Your task to perform on an android device: Go to Yahoo.com Image 0: 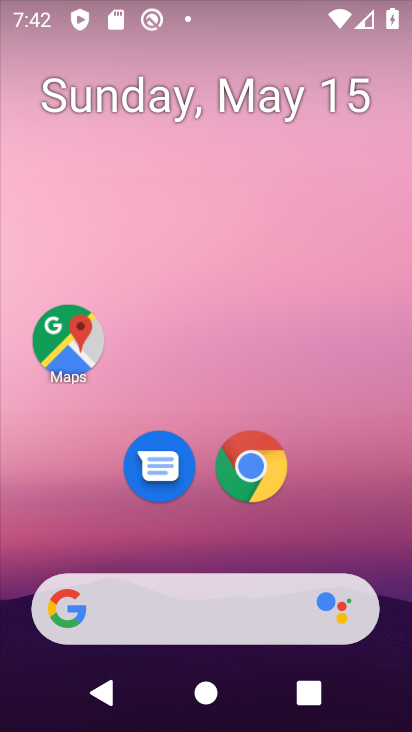
Step 0: click (269, 470)
Your task to perform on an android device: Go to Yahoo.com Image 1: 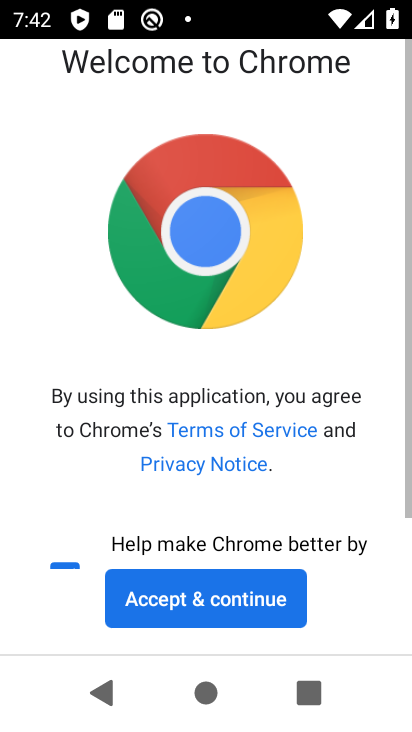
Step 1: click (229, 593)
Your task to perform on an android device: Go to Yahoo.com Image 2: 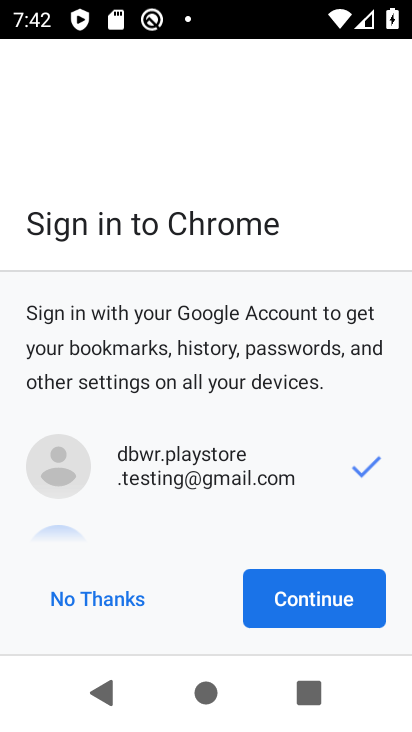
Step 2: click (336, 587)
Your task to perform on an android device: Go to Yahoo.com Image 3: 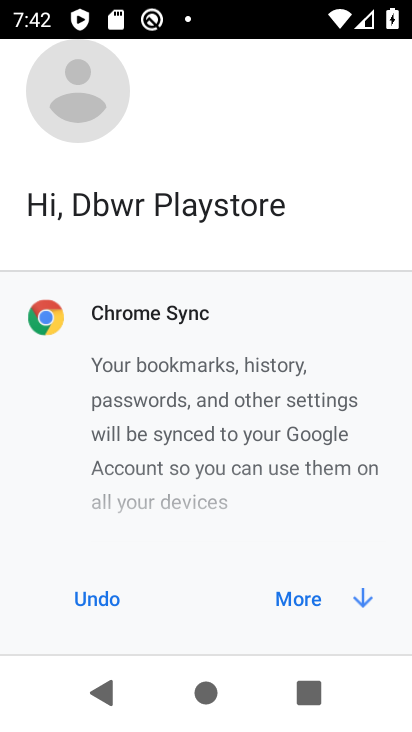
Step 3: click (328, 607)
Your task to perform on an android device: Go to Yahoo.com Image 4: 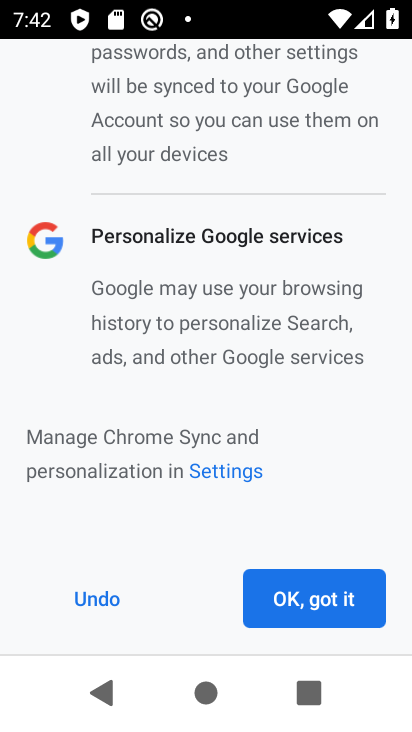
Step 4: click (330, 602)
Your task to perform on an android device: Go to Yahoo.com Image 5: 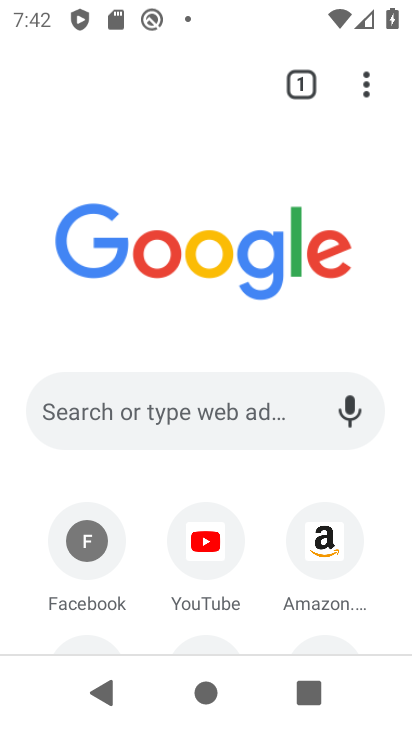
Step 5: drag from (261, 623) to (256, 267)
Your task to perform on an android device: Go to Yahoo.com Image 6: 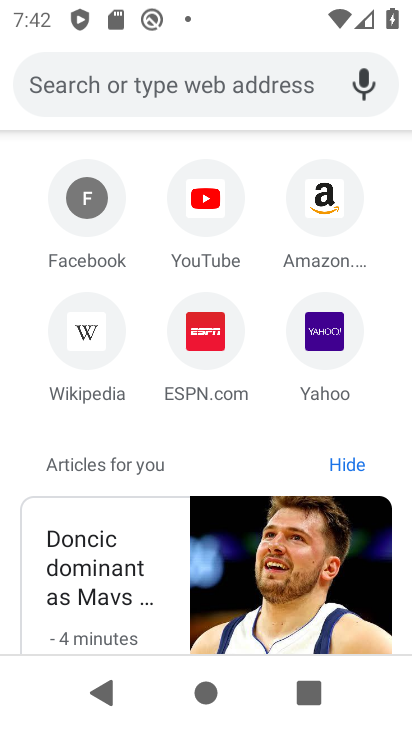
Step 6: click (313, 350)
Your task to perform on an android device: Go to Yahoo.com Image 7: 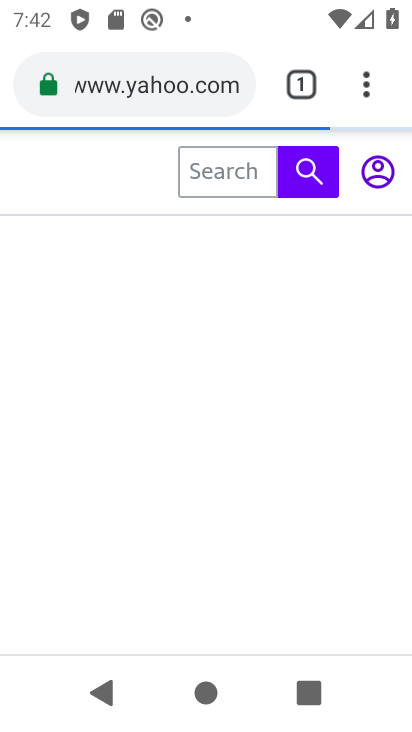
Step 7: task complete